Your task to perform on an android device: manage bookmarks in the chrome app Image 0: 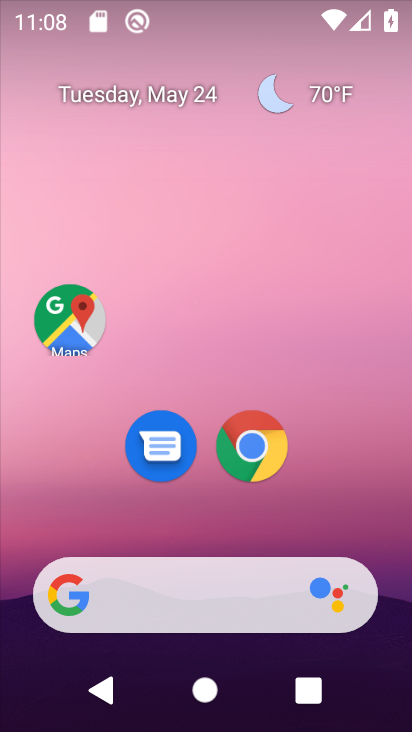
Step 0: drag from (242, 543) to (343, 198)
Your task to perform on an android device: manage bookmarks in the chrome app Image 1: 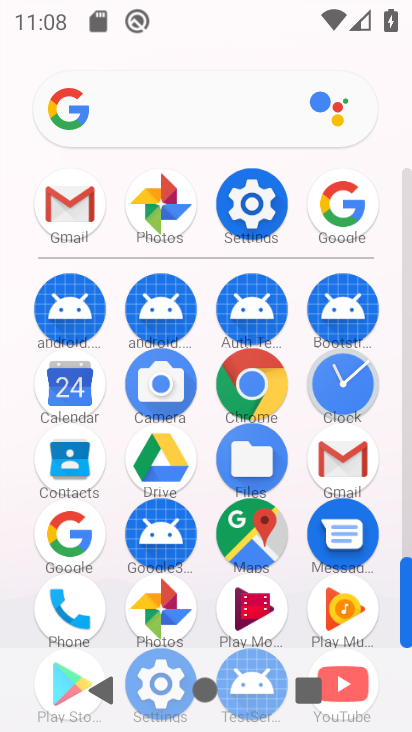
Step 1: click (275, 392)
Your task to perform on an android device: manage bookmarks in the chrome app Image 2: 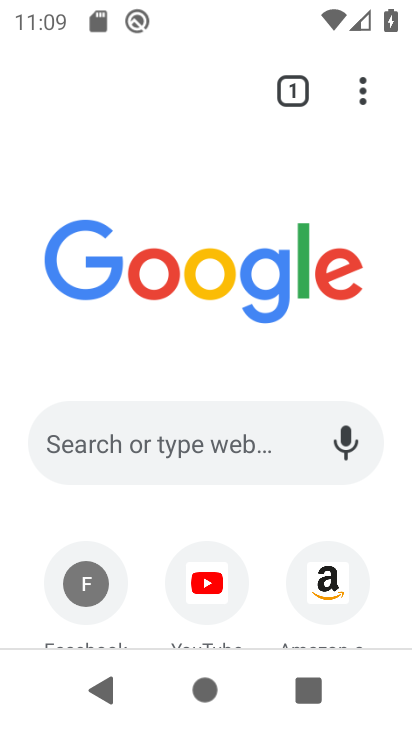
Step 2: click (369, 97)
Your task to perform on an android device: manage bookmarks in the chrome app Image 3: 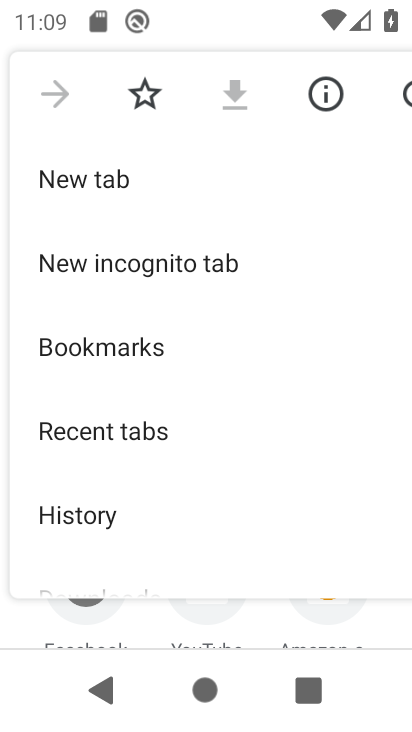
Step 3: click (175, 345)
Your task to perform on an android device: manage bookmarks in the chrome app Image 4: 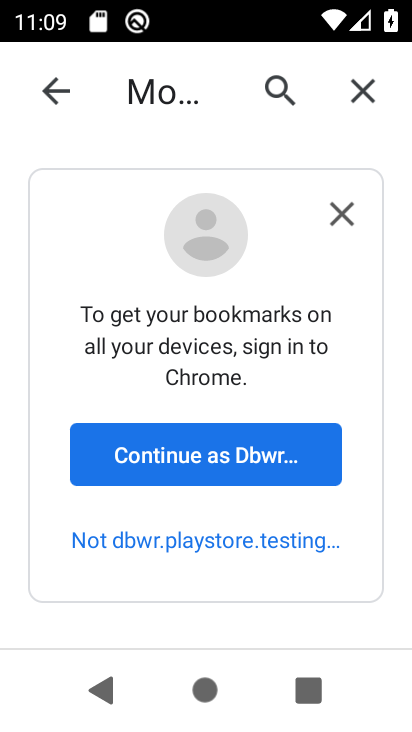
Step 4: click (256, 469)
Your task to perform on an android device: manage bookmarks in the chrome app Image 5: 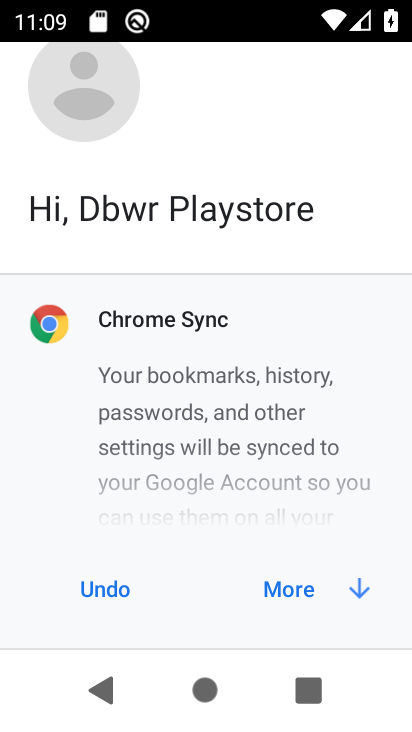
Step 5: click (284, 586)
Your task to perform on an android device: manage bookmarks in the chrome app Image 6: 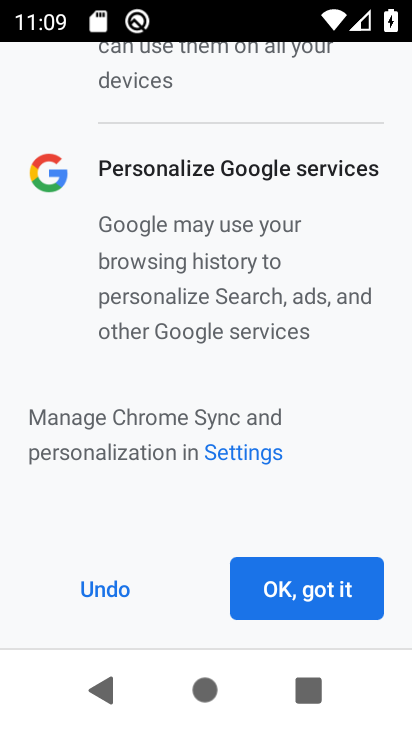
Step 6: click (284, 586)
Your task to perform on an android device: manage bookmarks in the chrome app Image 7: 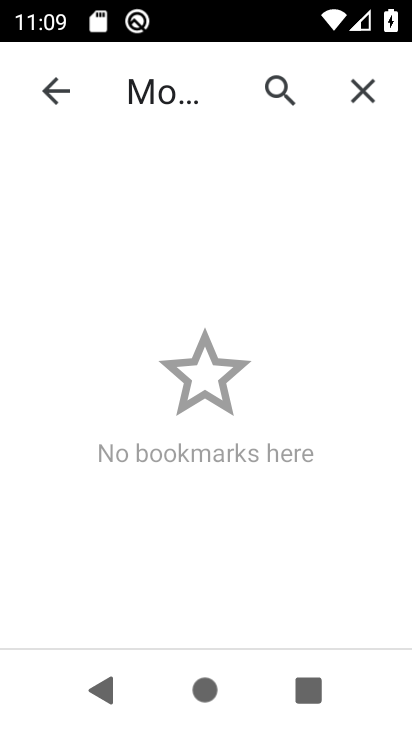
Step 7: task complete